Your task to perform on an android device: Open sound settings Image 0: 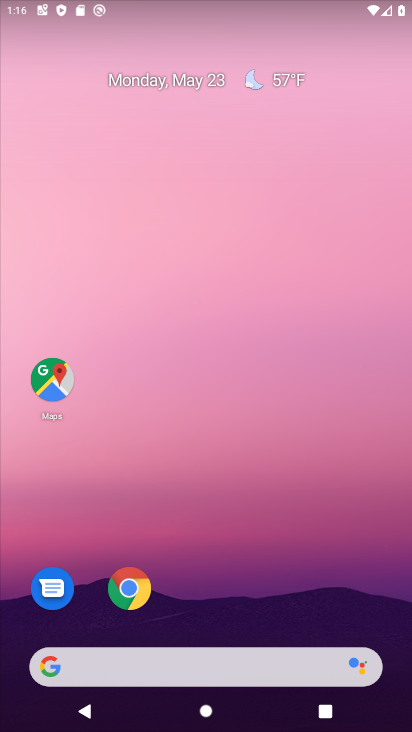
Step 0: drag from (243, 611) to (235, 164)
Your task to perform on an android device: Open sound settings Image 1: 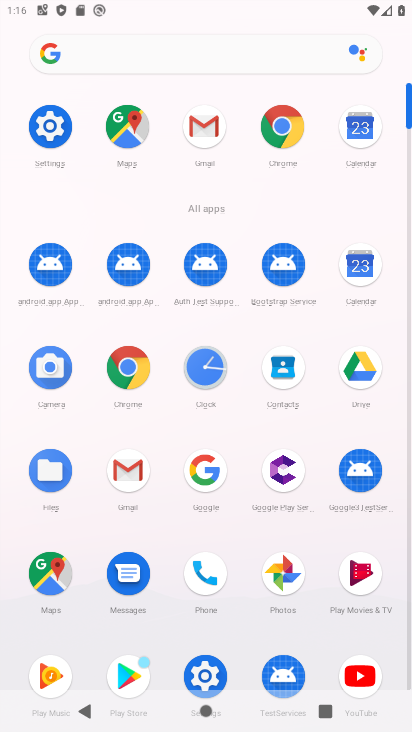
Step 1: click (41, 130)
Your task to perform on an android device: Open sound settings Image 2: 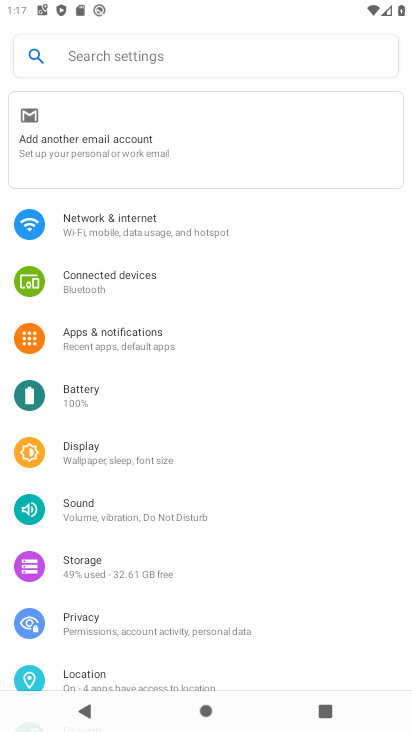
Step 2: click (162, 514)
Your task to perform on an android device: Open sound settings Image 3: 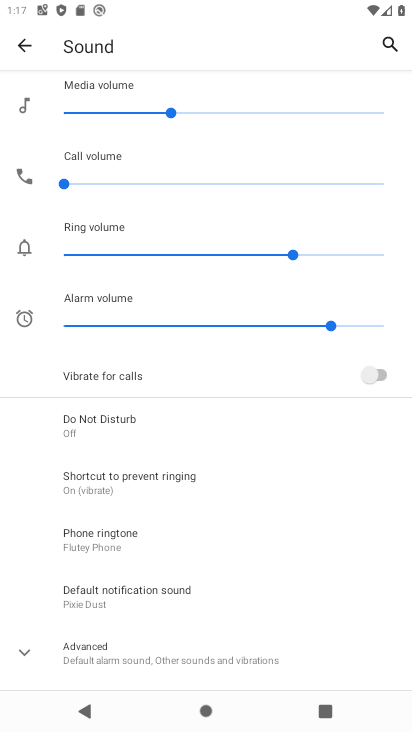
Step 3: task complete